Your task to perform on an android device: set the timer Image 0: 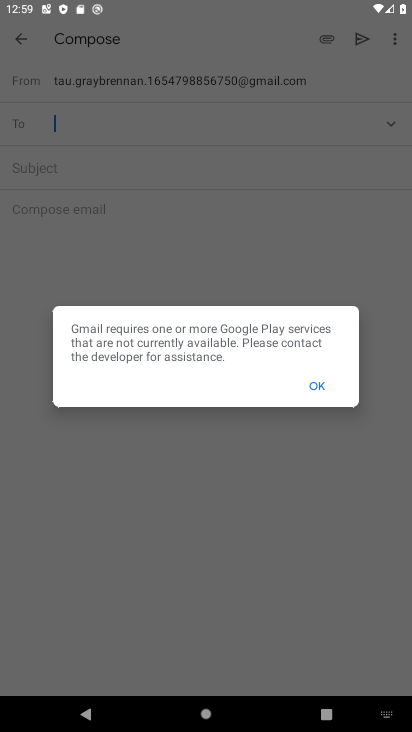
Step 0: press home button
Your task to perform on an android device: set the timer Image 1: 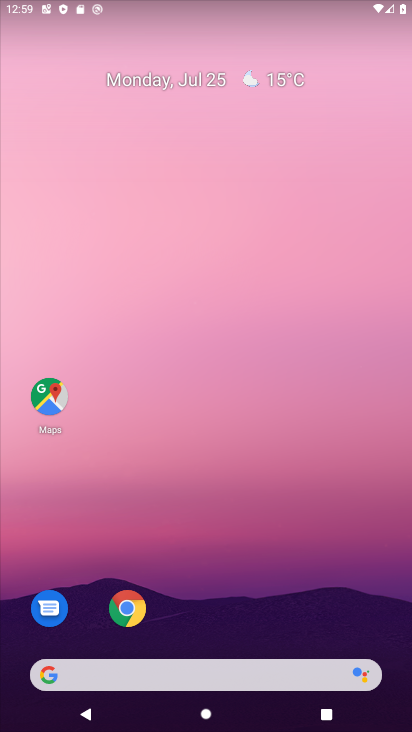
Step 1: drag from (229, 592) to (349, 139)
Your task to perform on an android device: set the timer Image 2: 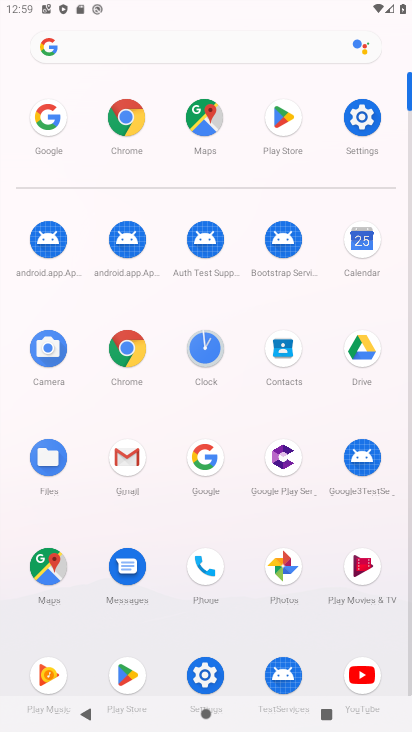
Step 2: click (210, 351)
Your task to perform on an android device: set the timer Image 3: 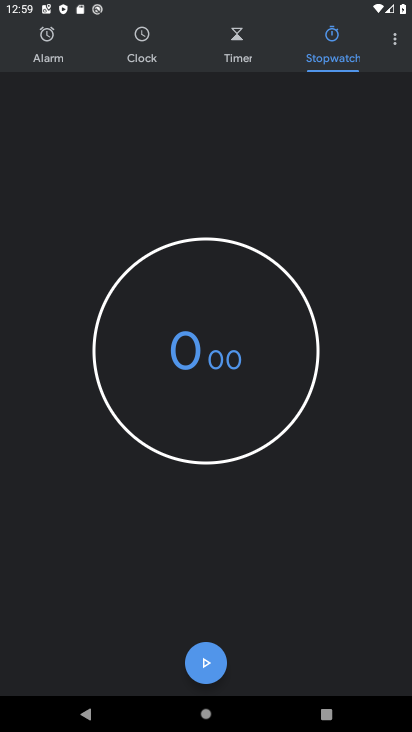
Step 3: click (235, 67)
Your task to perform on an android device: set the timer Image 4: 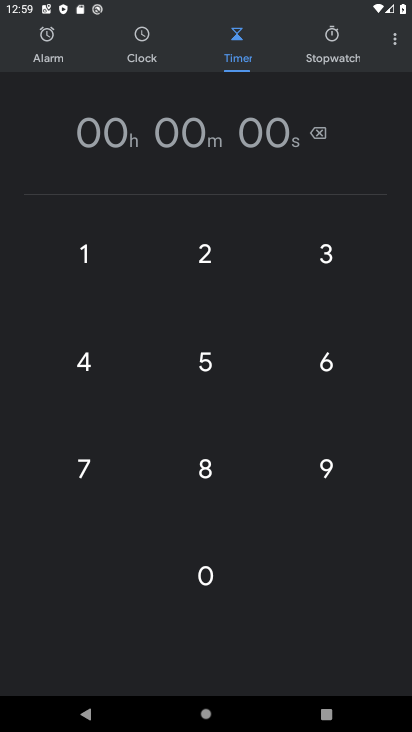
Step 4: click (220, 363)
Your task to perform on an android device: set the timer Image 5: 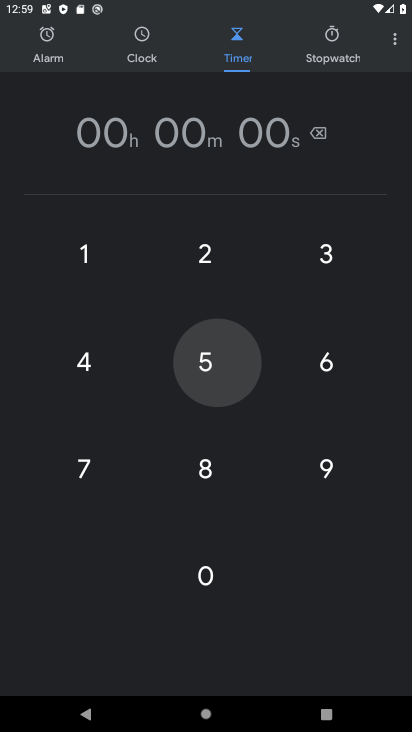
Step 5: click (220, 362)
Your task to perform on an android device: set the timer Image 6: 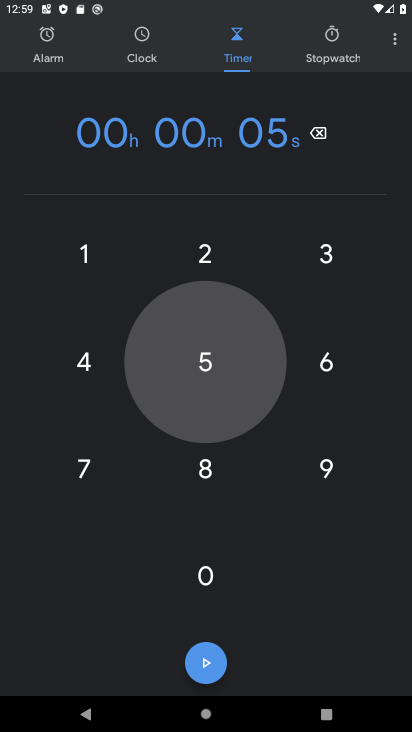
Step 6: click (218, 366)
Your task to perform on an android device: set the timer Image 7: 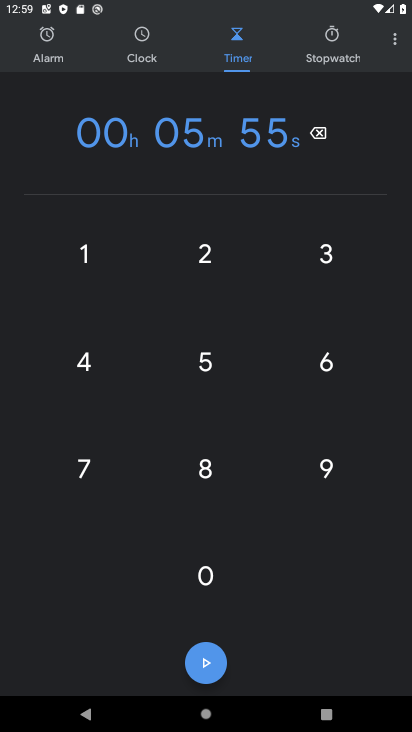
Step 7: click (303, 436)
Your task to perform on an android device: set the timer Image 8: 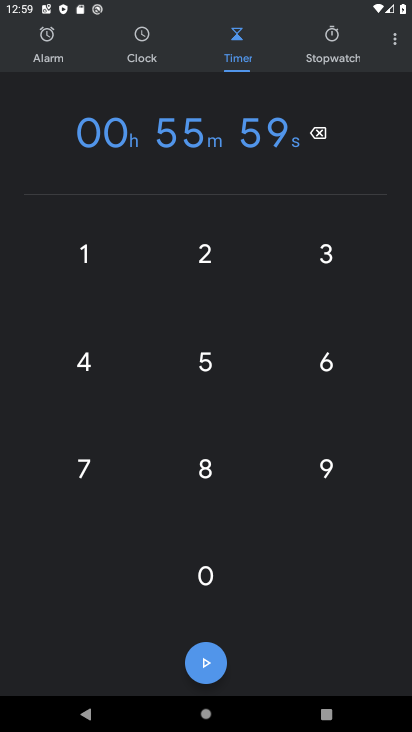
Step 8: click (221, 664)
Your task to perform on an android device: set the timer Image 9: 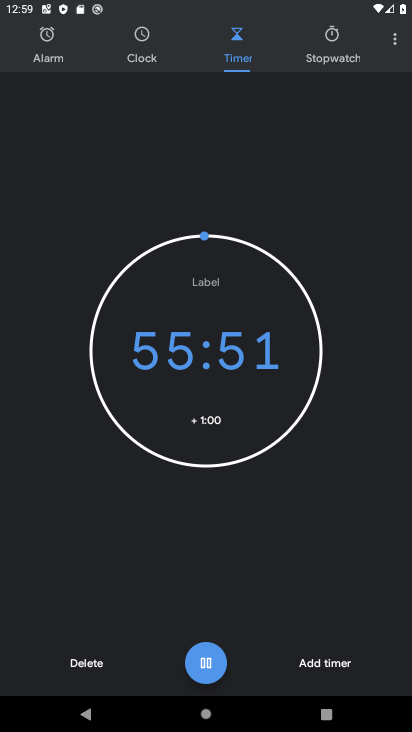
Step 9: task complete